Your task to perform on an android device: Open the phone app and click the voicemail tab. Image 0: 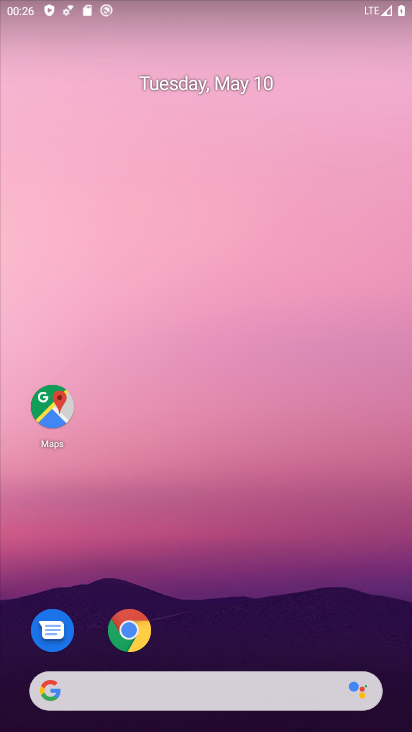
Step 0: drag from (210, 724) to (211, 166)
Your task to perform on an android device: Open the phone app and click the voicemail tab. Image 1: 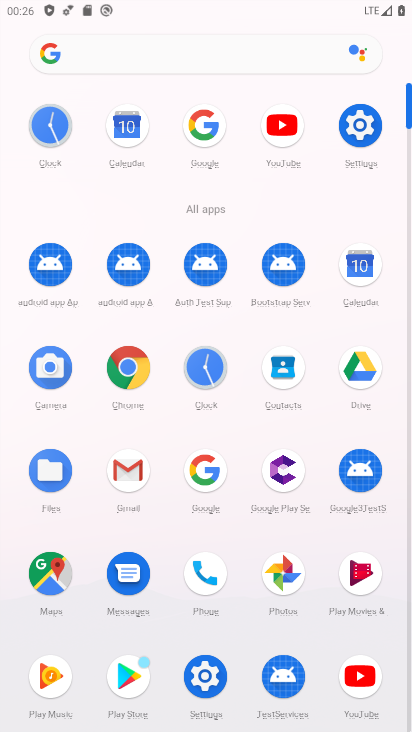
Step 1: drag from (234, 631) to (234, 300)
Your task to perform on an android device: Open the phone app and click the voicemail tab. Image 2: 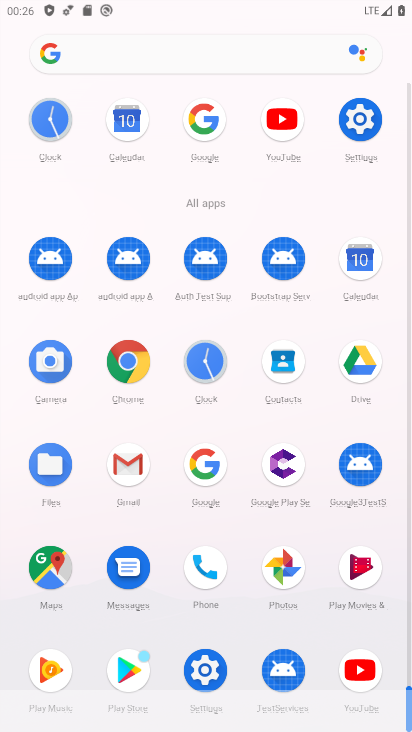
Step 2: click (204, 562)
Your task to perform on an android device: Open the phone app and click the voicemail tab. Image 3: 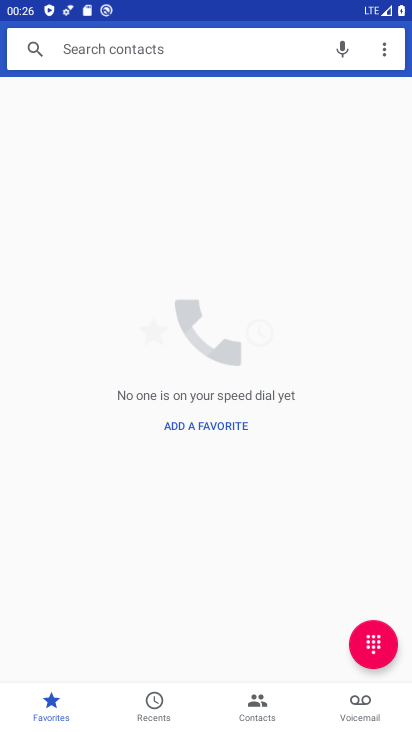
Step 3: click (356, 698)
Your task to perform on an android device: Open the phone app and click the voicemail tab. Image 4: 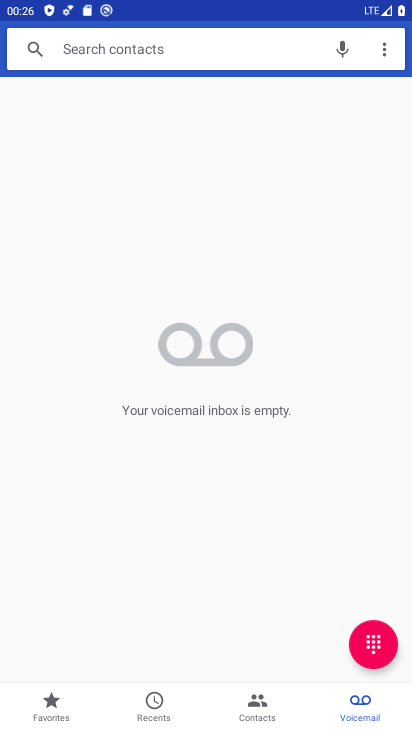
Step 4: task complete